Your task to perform on an android device: toggle sleep mode Image 0: 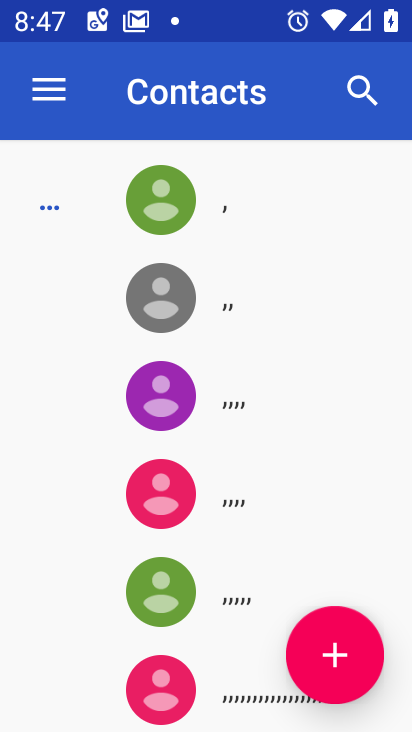
Step 0: press home button
Your task to perform on an android device: toggle sleep mode Image 1: 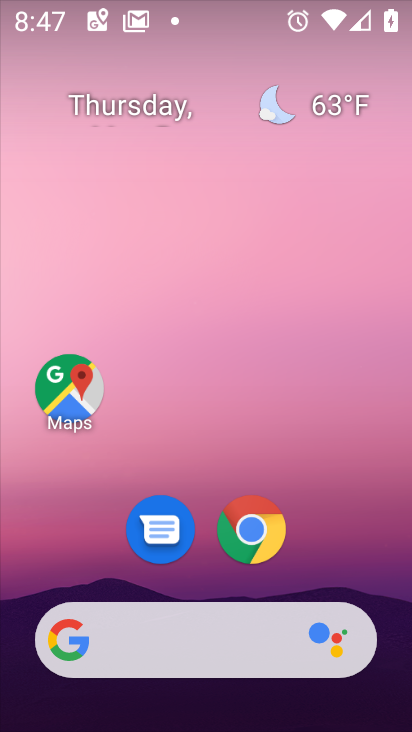
Step 1: drag from (188, 584) to (189, 172)
Your task to perform on an android device: toggle sleep mode Image 2: 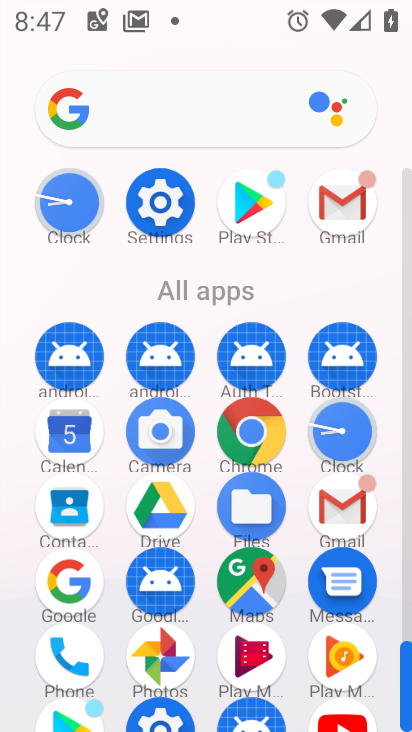
Step 2: click (148, 192)
Your task to perform on an android device: toggle sleep mode Image 3: 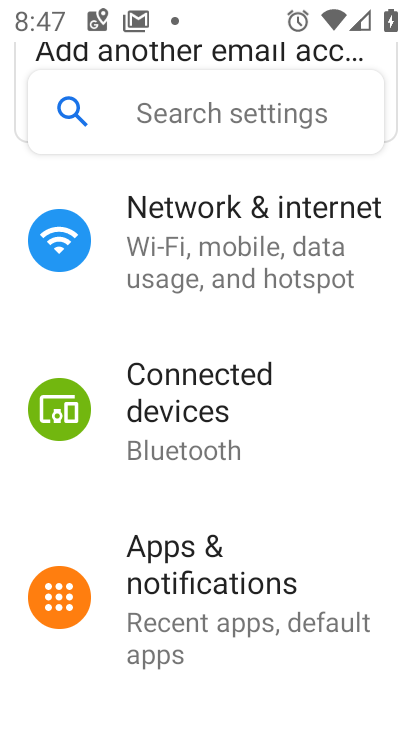
Step 3: drag from (223, 576) to (214, 360)
Your task to perform on an android device: toggle sleep mode Image 4: 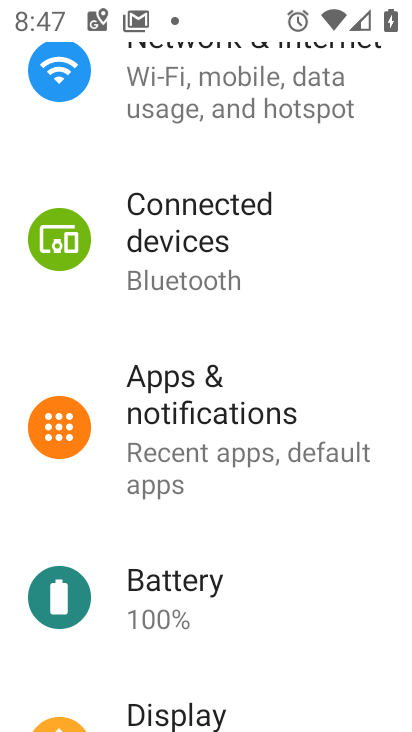
Step 4: click (205, 703)
Your task to perform on an android device: toggle sleep mode Image 5: 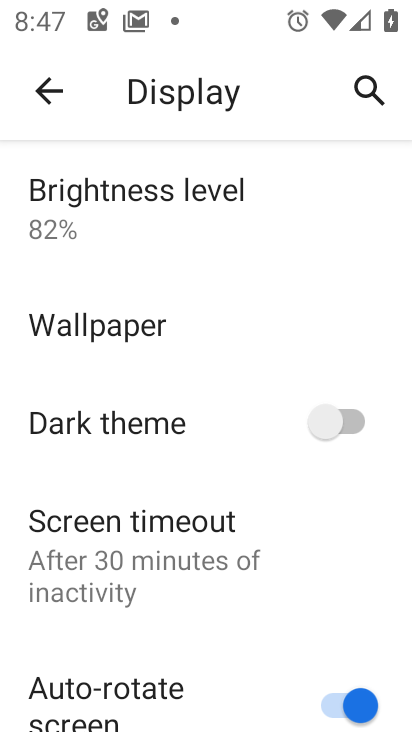
Step 5: click (150, 592)
Your task to perform on an android device: toggle sleep mode Image 6: 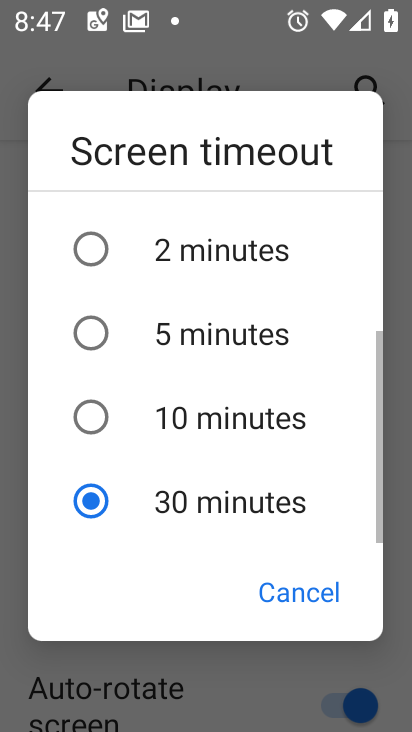
Step 6: click (138, 403)
Your task to perform on an android device: toggle sleep mode Image 7: 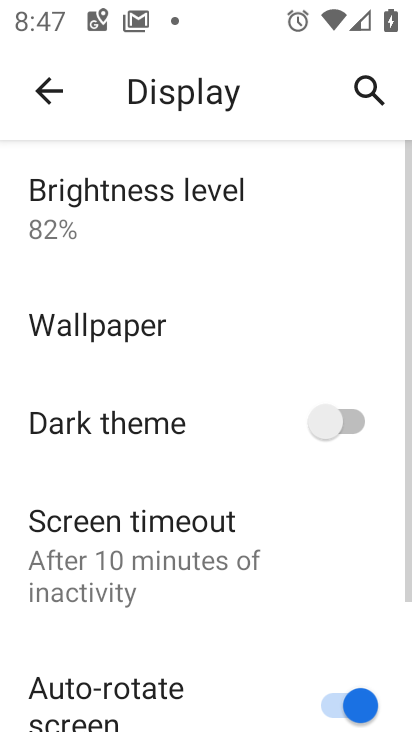
Step 7: task complete